Your task to perform on an android device: Open network settings Image 0: 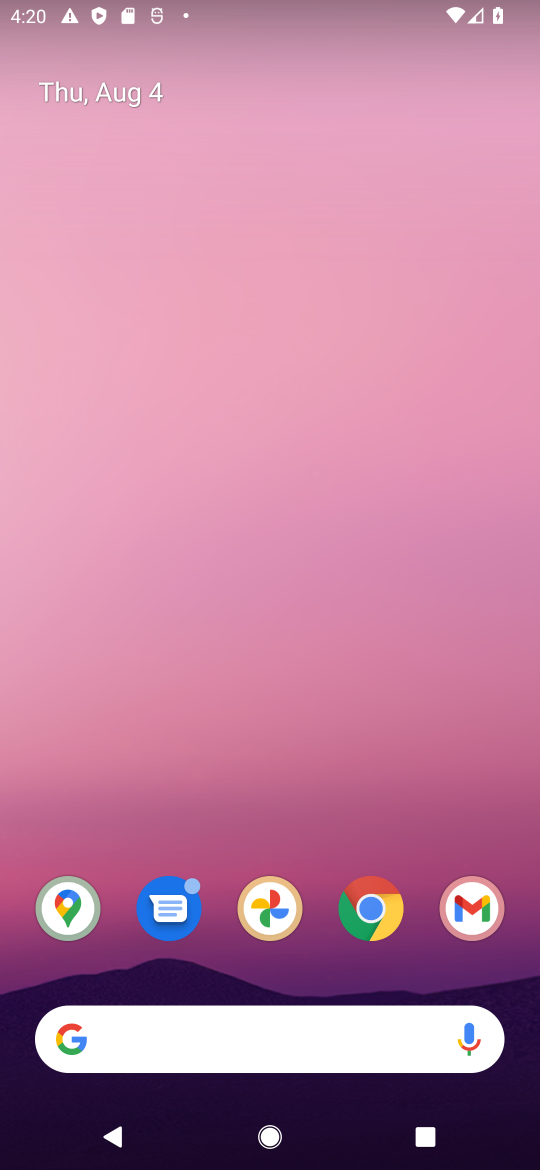
Step 0: drag from (191, 896) to (206, 147)
Your task to perform on an android device: Open network settings Image 1: 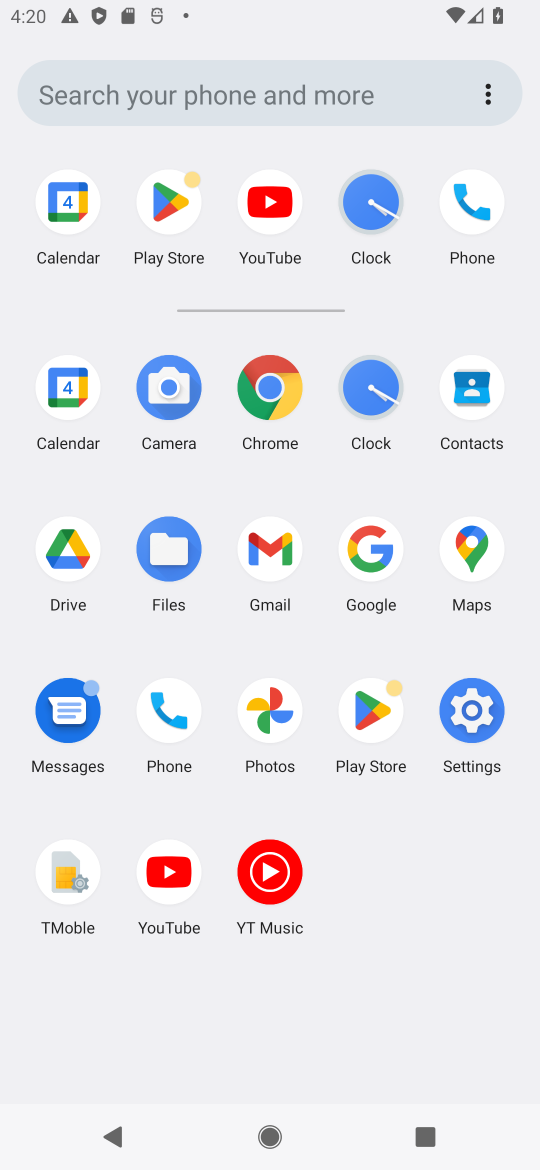
Step 1: click (482, 715)
Your task to perform on an android device: Open network settings Image 2: 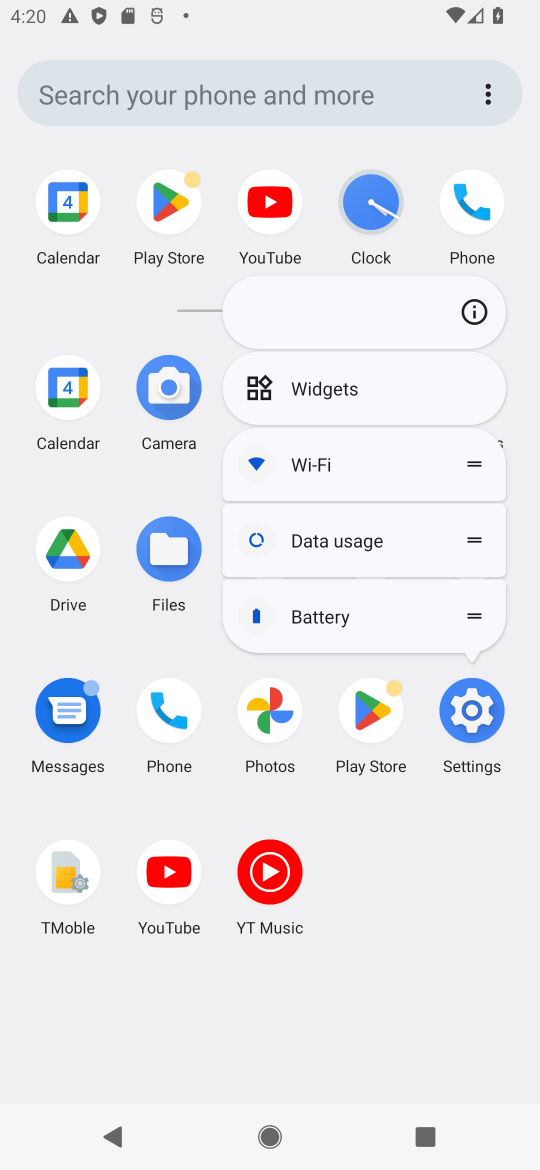
Step 2: click (482, 714)
Your task to perform on an android device: Open network settings Image 3: 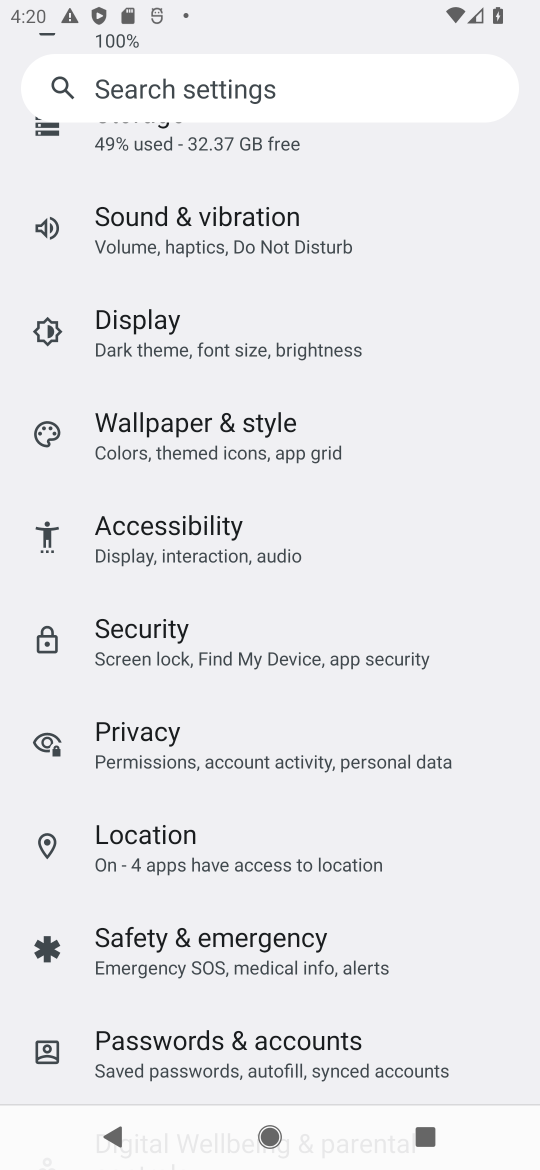
Step 3: drag from (413, 290) to (401, 732)
Your task to perform on an android device: Open network settings Image 4: 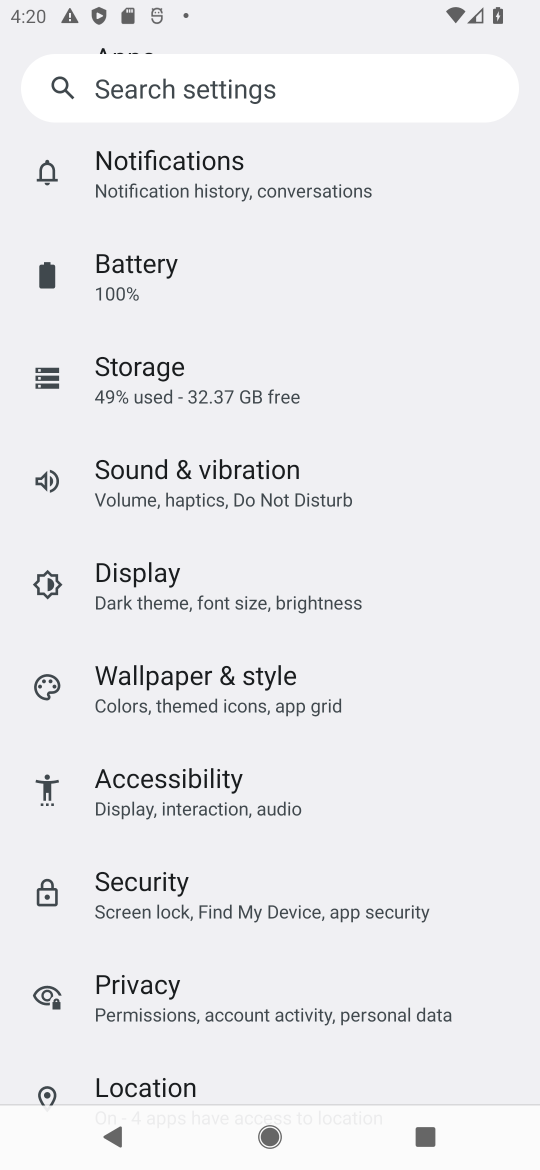
Step 4: drag from (274, 289) to (351, 1033)
Your task to perform on an android device: Open network settings Image 5: 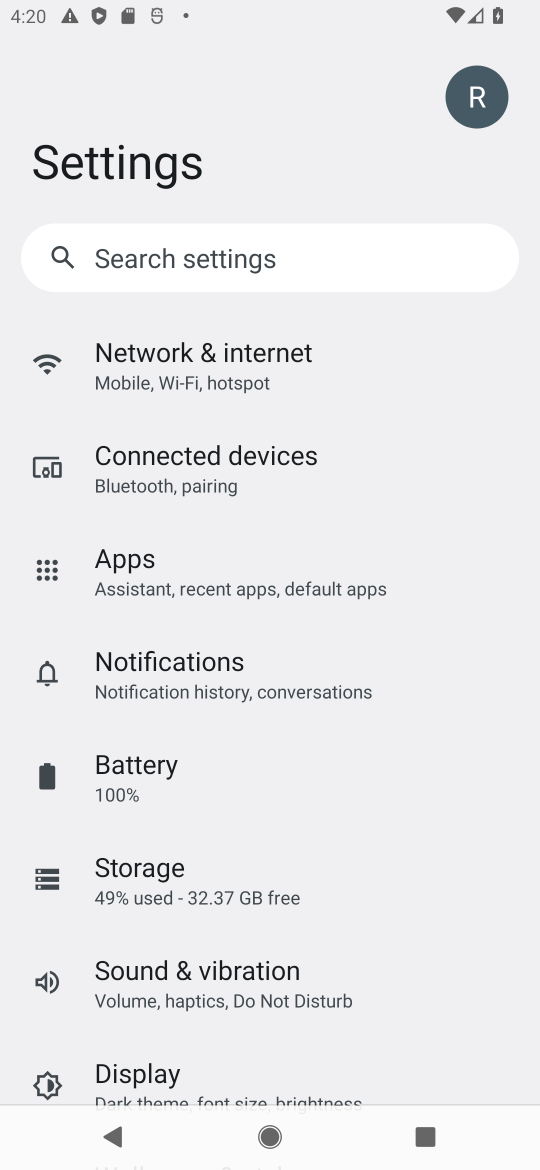
Step 5: click (236, 390)
Your task to perform on an android device: Open network settings Image 6: 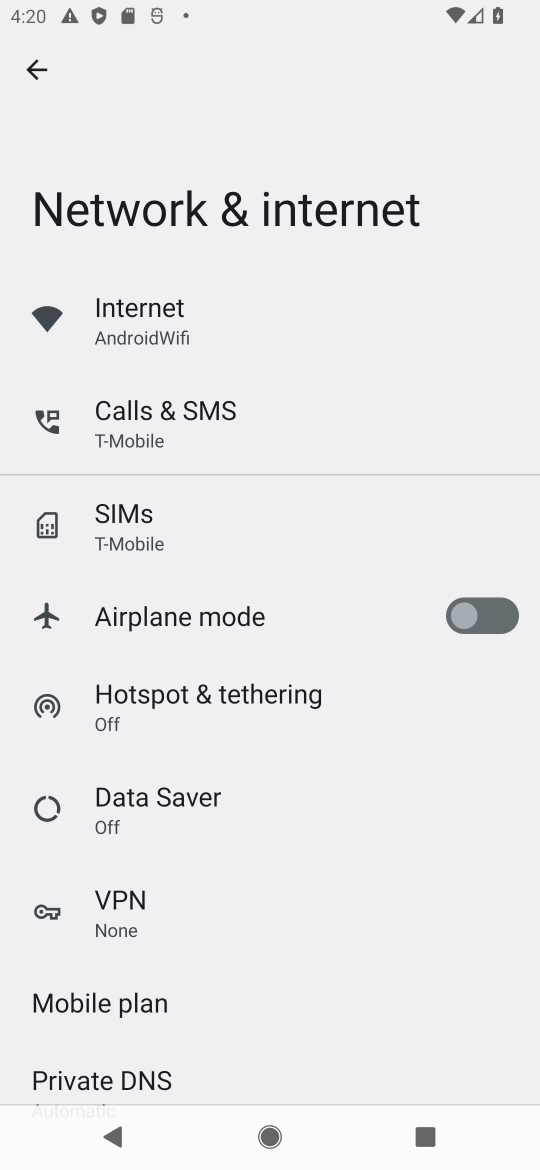
Step 6: click (145, 316)
Your task to perform on an android device: Open network settings Image 7: 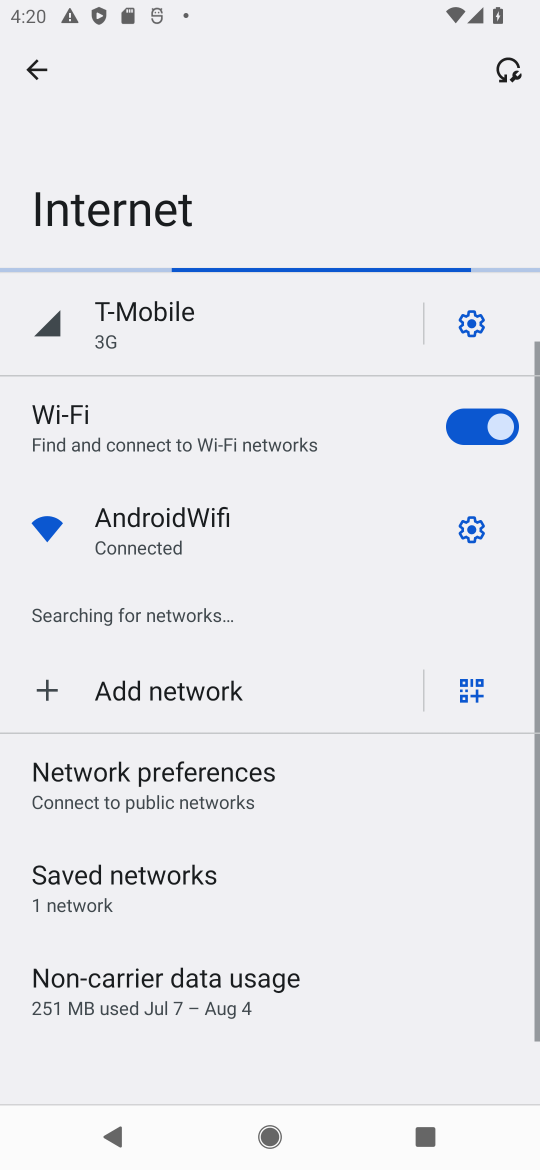
Step 7: click (166, 811)
Your task to perform on an android device: Open network settings Image 8: 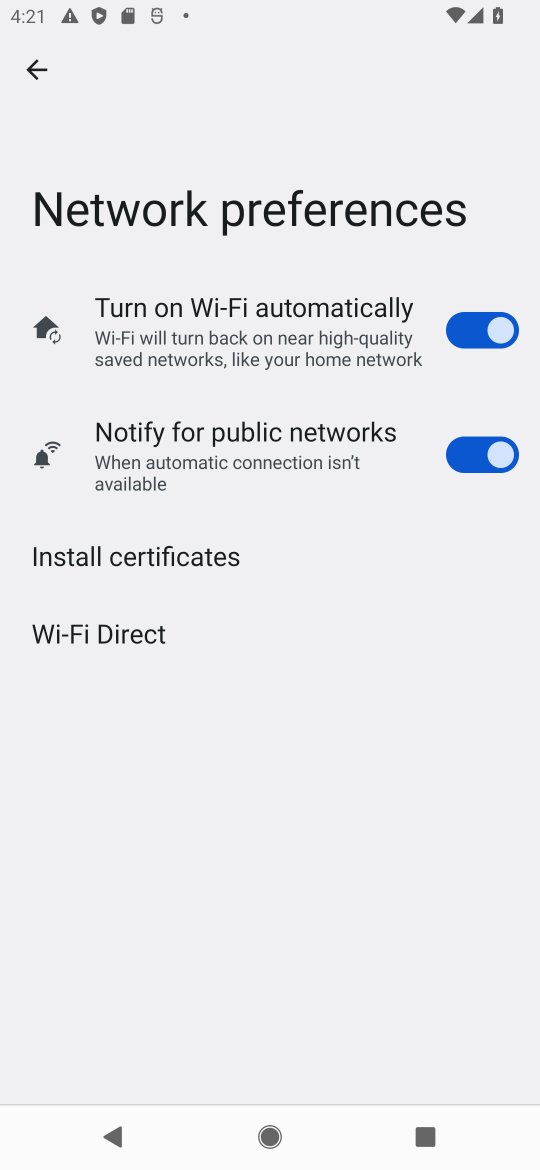
Step 8: task complete